Your task to perform on an android device: Show me productivity apps on the Play Store Image 0: 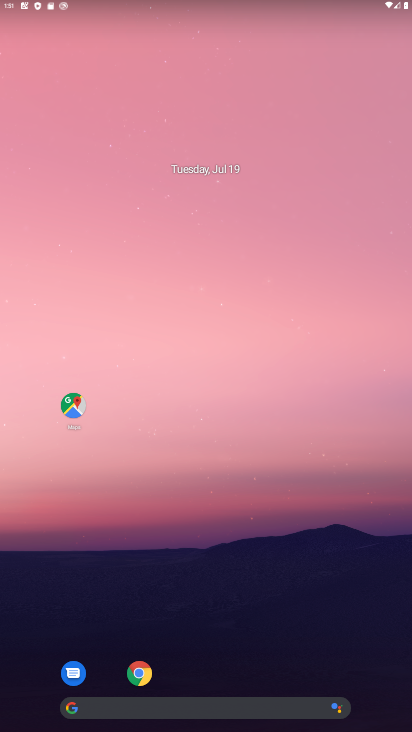
Step 0: drag from (200, 697) to (249, 15)
Your task to perform on an android device: Show me productivity apps on the Play Store Image 1: 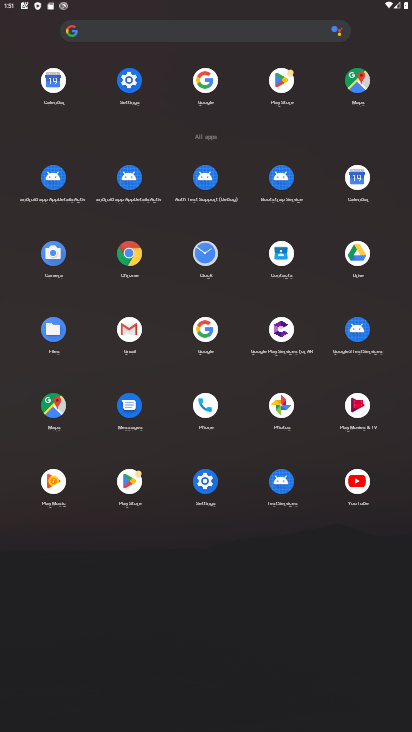
Step 1: click (284, 82)
Your task to perform on an android device: Show me productivity apps on the Play Store Image 2: 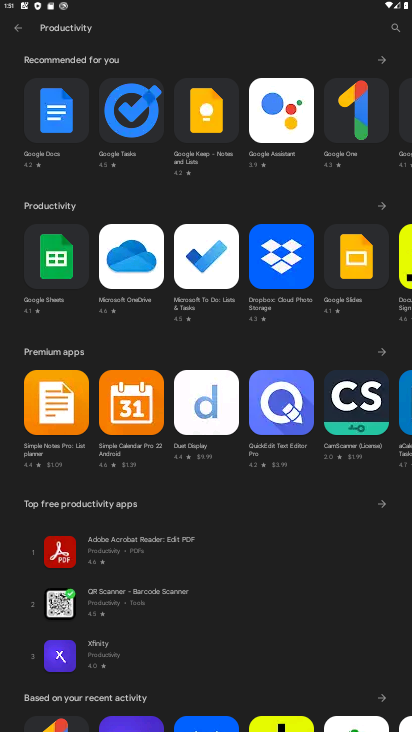
Step 2: task complete